Your task to perform on an android device: delete browsing data in the chrome app Image 0: 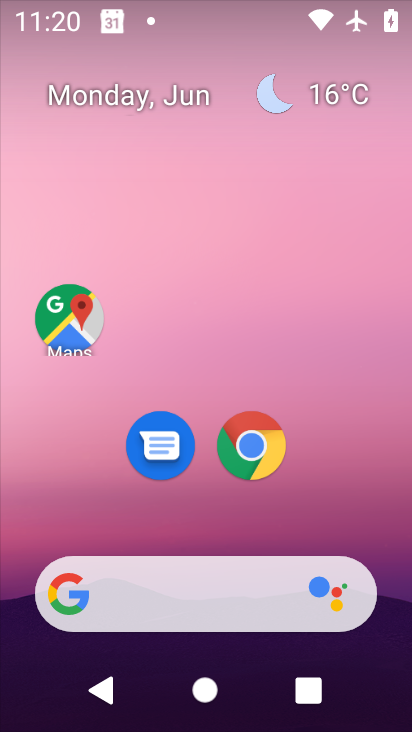
Step 0: click (248, 448)
Your task to perform on an android device: delete browsing data in the chrome app Image 1: 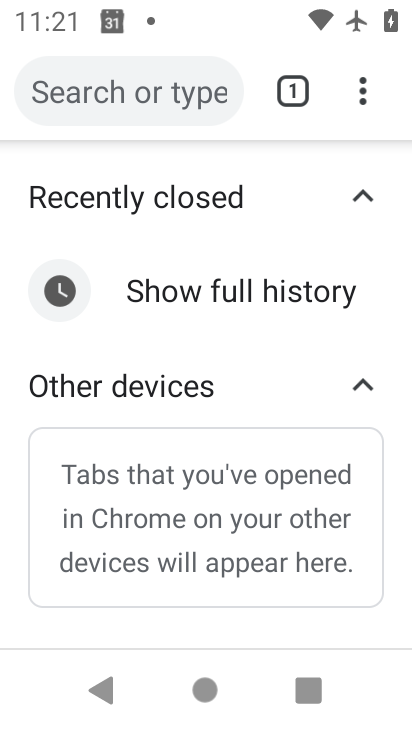
Step 1: task complete